Your task to perform on an android device: set an alarm Image 0: 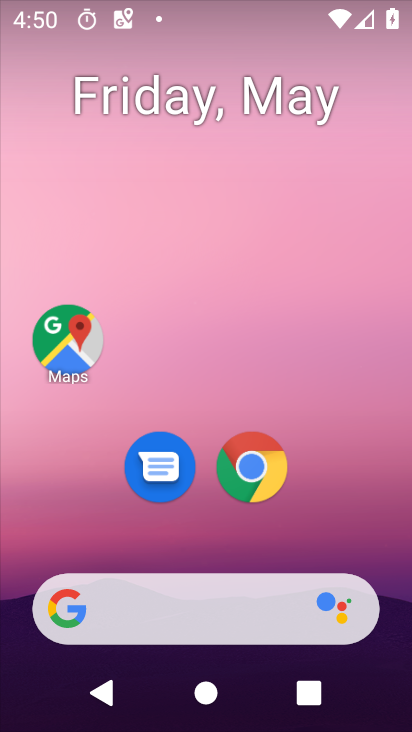
Step 0: drag from (331, 515) to (316, 62)
Your task to perform on an android device: set an alarm Image 1: 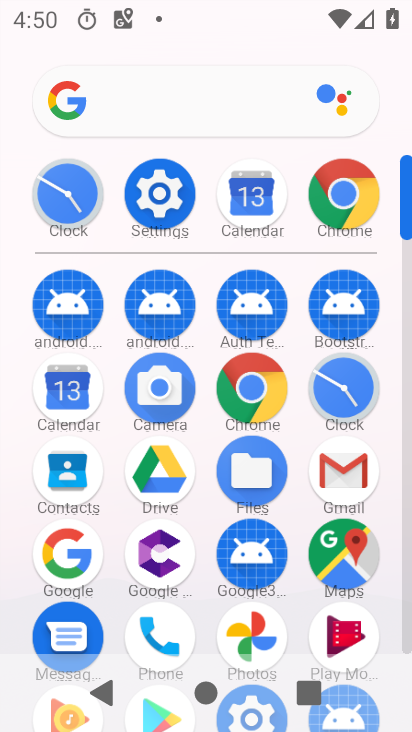
Step 1: click (344, 394)
Your task to perform on an android device: set an alarm Image 2: 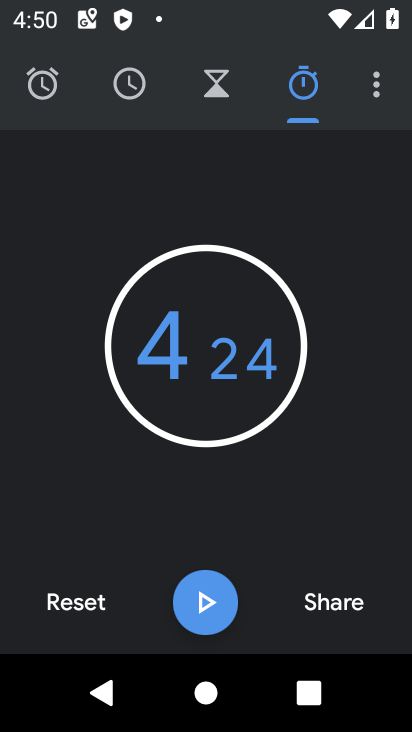
Step 2: click (378, 86)
Your task to perform on an android device: set an alarm Image 3: 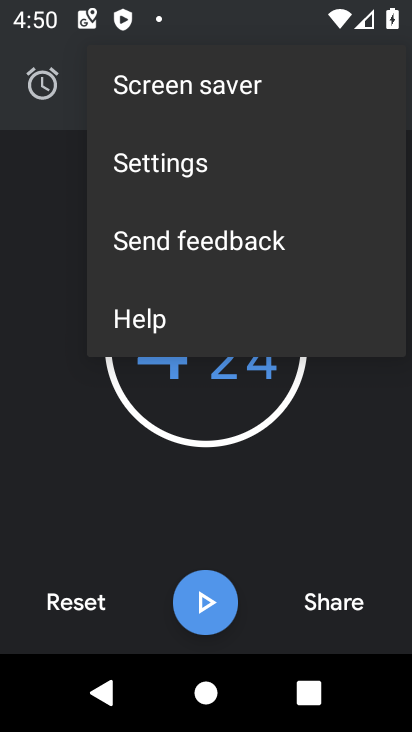
Step 3: click (304, 459)
Your task to perform on an android device: set an alarm Image 4: 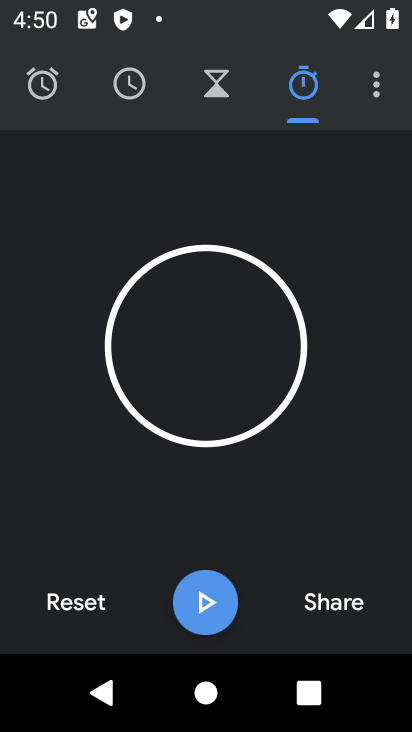
Step 4: click (46, 80)
Your task to perform on an android device: set an alarm Image 5: 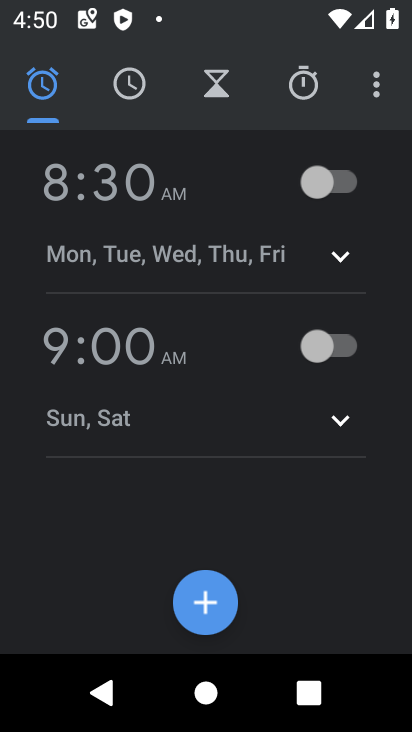
Step 5: click (213, 604)
Your task to perform on an android device: set an alarm Image 6: 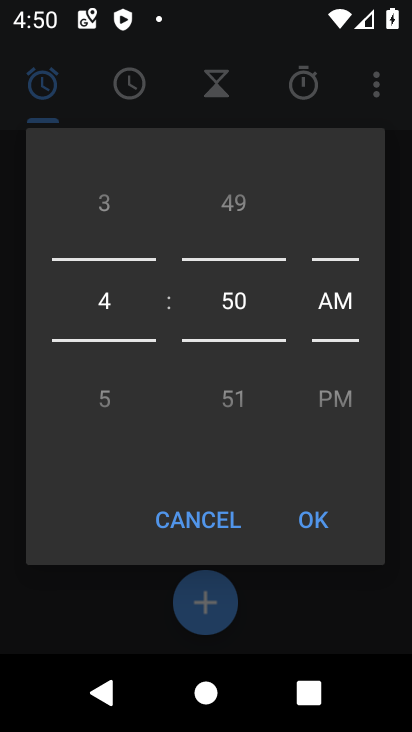
Step 6: click (310, 533)
Your task to perform on an android device: set an alarm Image 7: 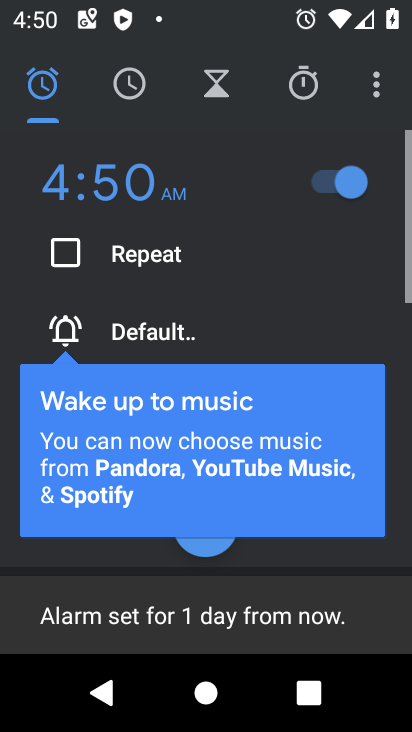
Step 7: task complete